Your task to perform on an android device: change keyboard looks Image 0: 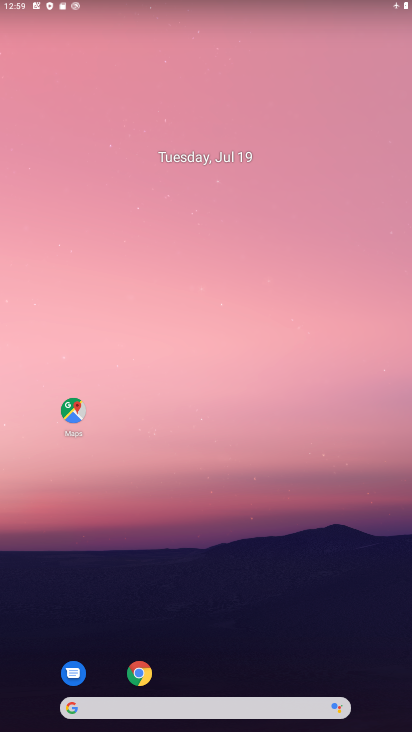
Step 0: drag from (276, 637) to (224, 295)
Your task to perform on an android device: change keyboard looks Image 1: 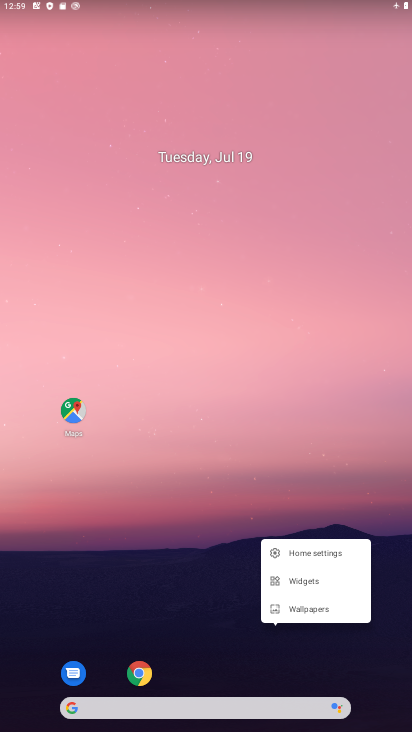
Step 1: drag from (199, 235) to (169, 521)
Your task to perform on an android device: change keyboard looks Image 2: 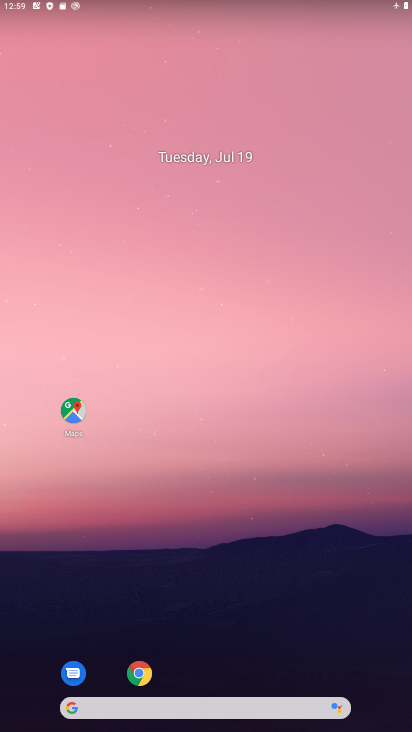
Step 2: click (169, 521)
Your task to perform on an android device: change keyboard looks Image 3: 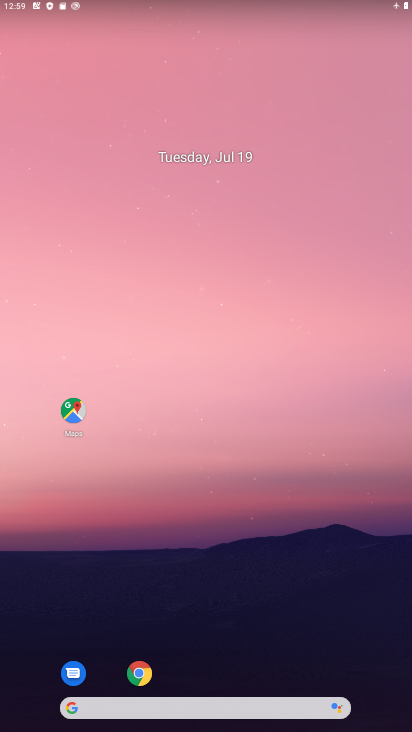
Step 3: drag from (214, 280) to (197, 155)
Your task to perform on an android device: change keyboard looks Image 4: 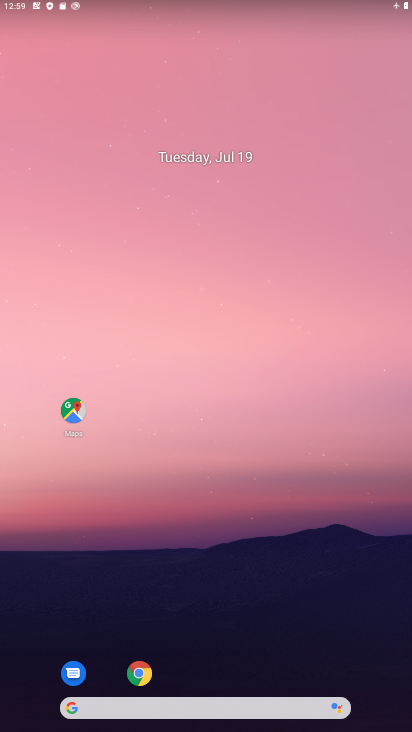
Step 4: drag from (189, 434) to (140, 67)
Your task to perform on an android device: change keyboard looks Image 5: 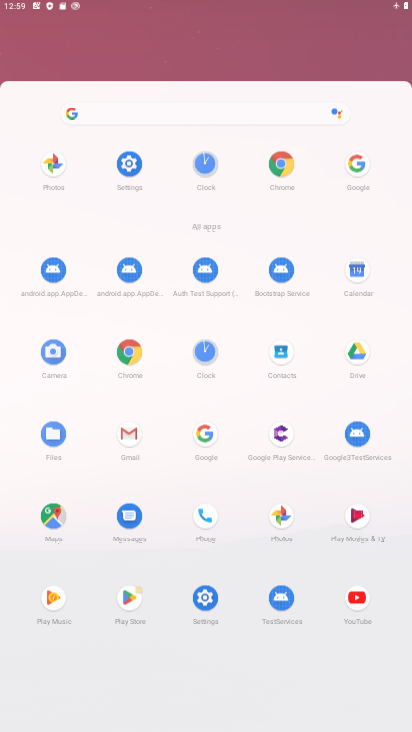
Step 5: drag from (246, 510) to (210, 150)
Your task to perform on an android device: change keyboard looks Image 6: 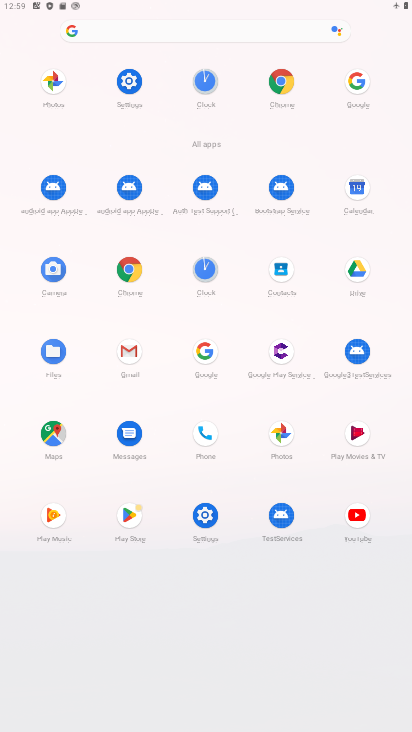
Step 6: drag from (187, 601) to (174, 154)
Your task to perform on an android device: change keyboard looks Image 7: 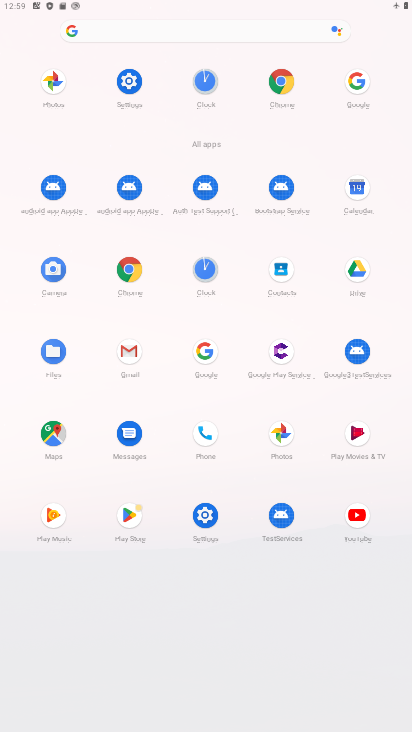
Step 7: click (198, 509)
Your task to perform on an android device: change keyboard looks Image 8: 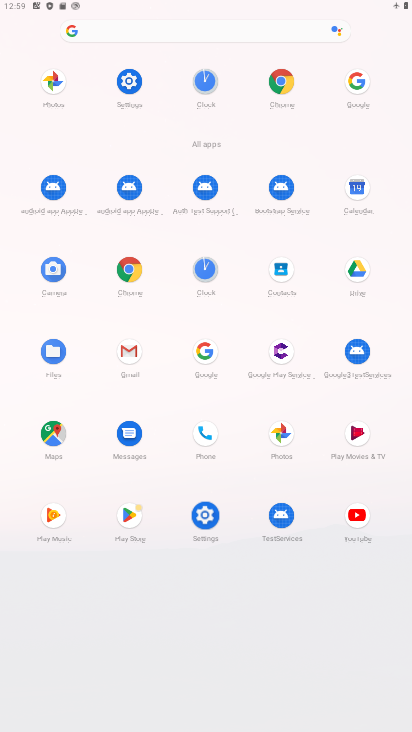
Step 8: click (204, 506)
Your task to perform on an android device: change keyboard looks Image 9: 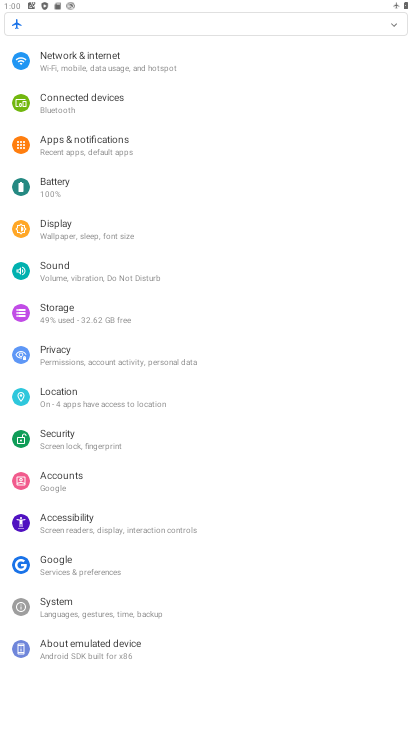
Step 9: drag from (94, 150) to (76, 575)
Your task to perform on an android device: change keyboard looks Image 10: 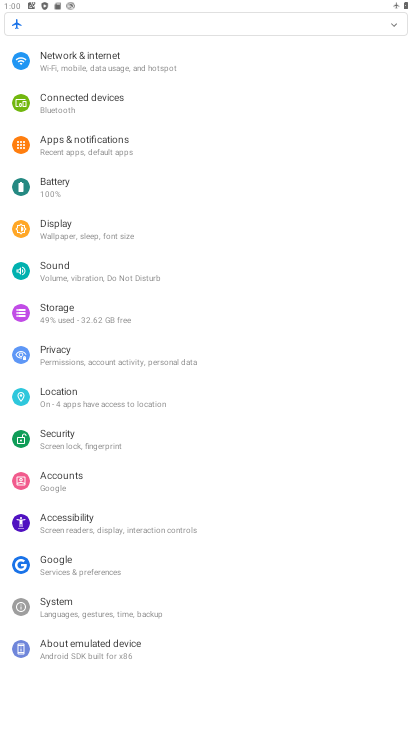
Step 10: click (73, 440)
Your task to perform on an android device: change keyboard looks Image 11: 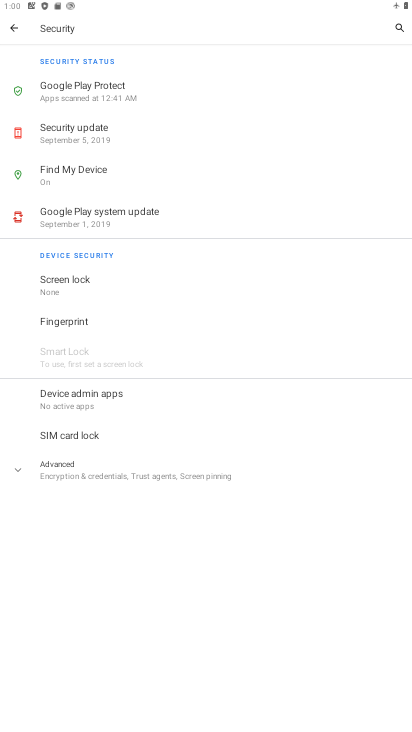
Step 11: click (12, 27)
Your task to perform on an android device: change keyboard looks Image 12: 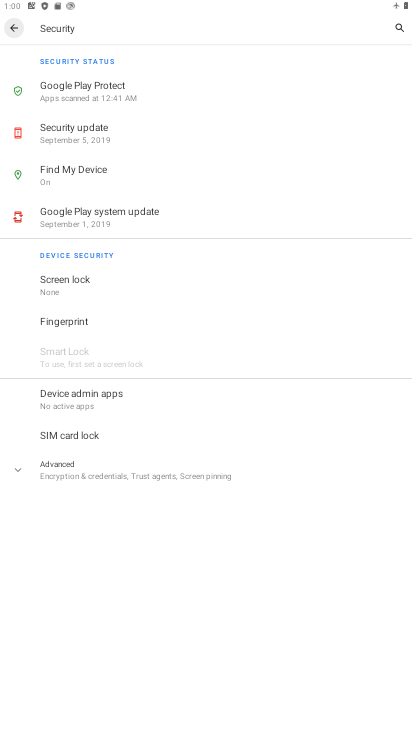
Step 12: click (12, 27)
Your task to perform on an android device: change keyboard looks Image 13: 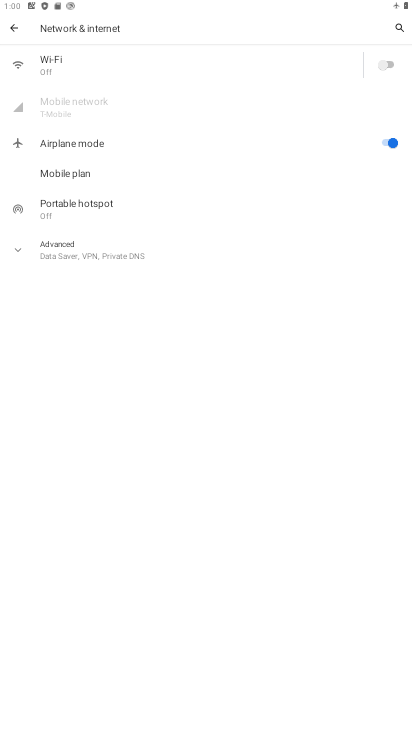
Step 13: click (10, 25)
Your task to perform on an android device: change keyboard looks Image 14: 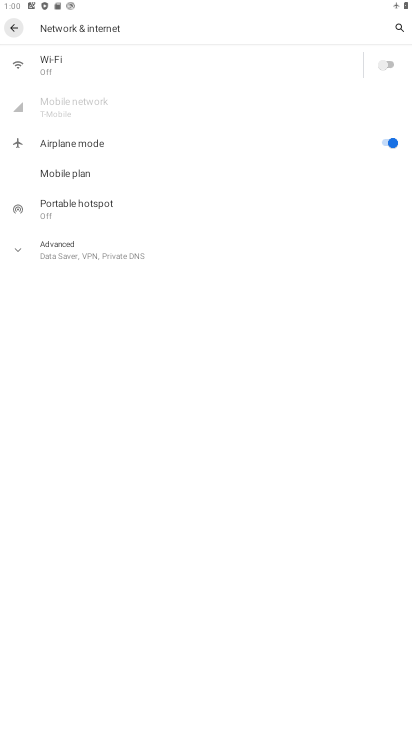
Step 14: click (10, 24)
Your task to perform on an android device: change keyboard looks Image 15: 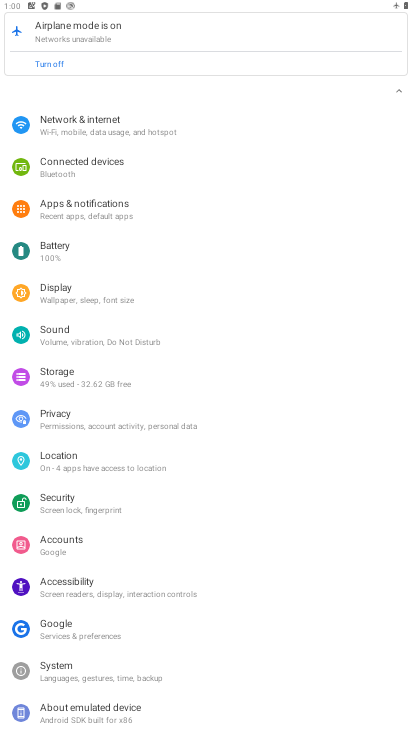
Step 15: click (55, 670)
Your task to perform on an android device: change keyboard looks Image 16: 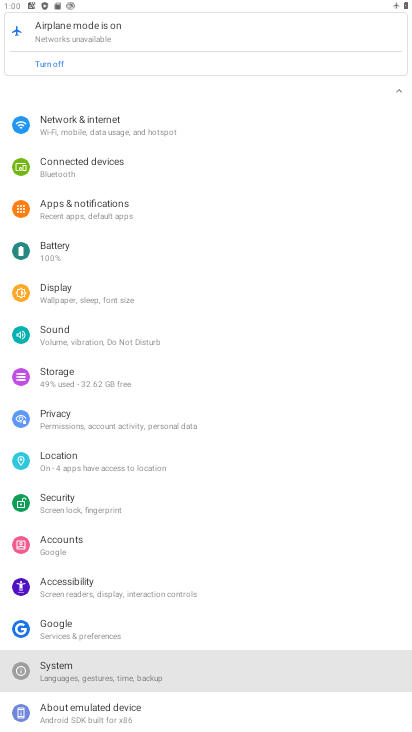
Step 16: click (55, 670)
Your task to perform on an android device: change keyboard looks Image 17: 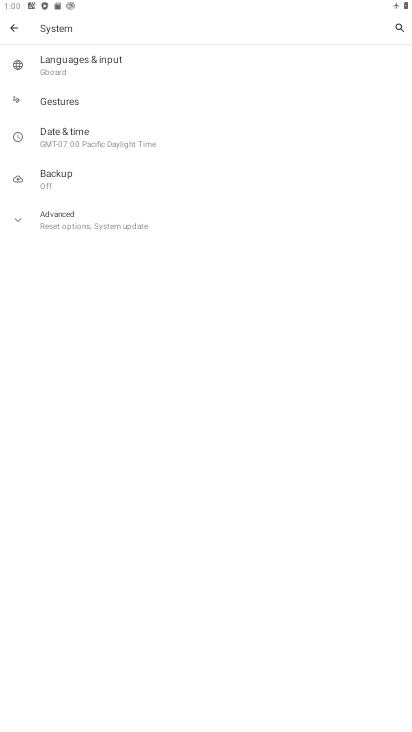
Step 17: click (50, 65)
Your task to perform on an android device: change keyboard looks Image 18: 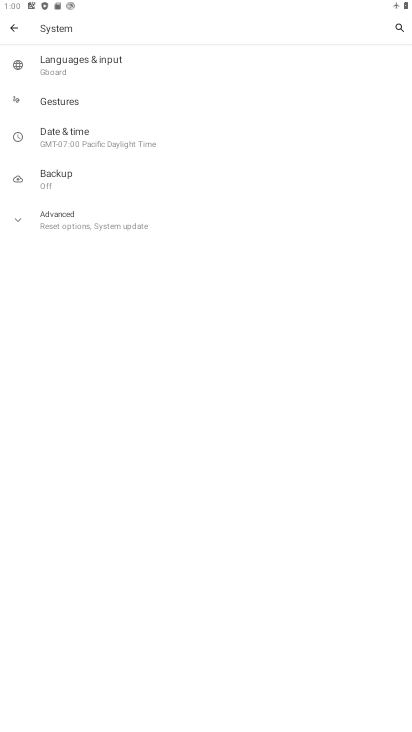
Step 18: click (50, 65)
Your task to perform on an android device: change keyboard looks Image 19: 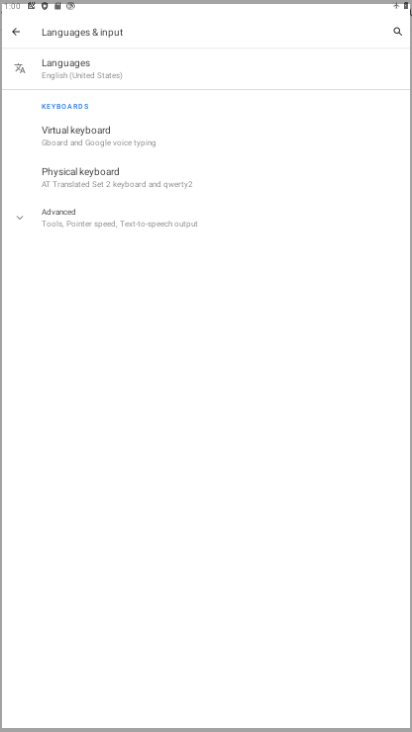
Step 19: click (50, 65)
Your task to perform on an android device: change keyboard looks Image 20: 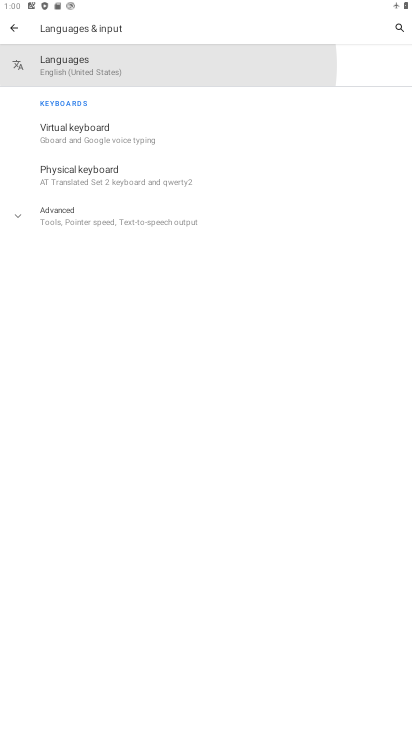
Step 20: click (49, 64)
Your task to perform on an android device: change keyboard looks Image 21: 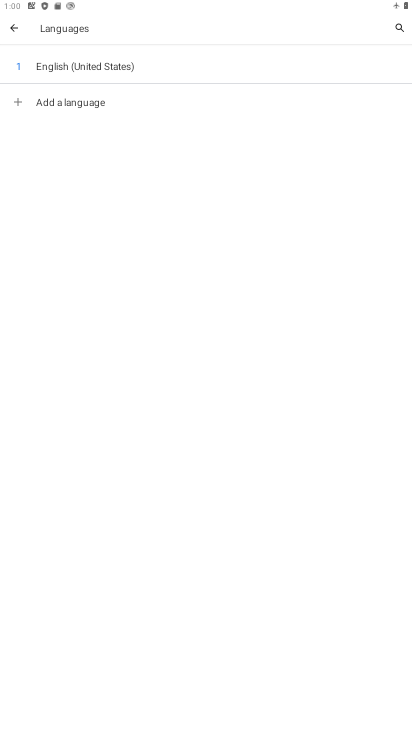
Step 21: click (10, 24)
Your task to perform on an android device: change keyboard looks Image 22: 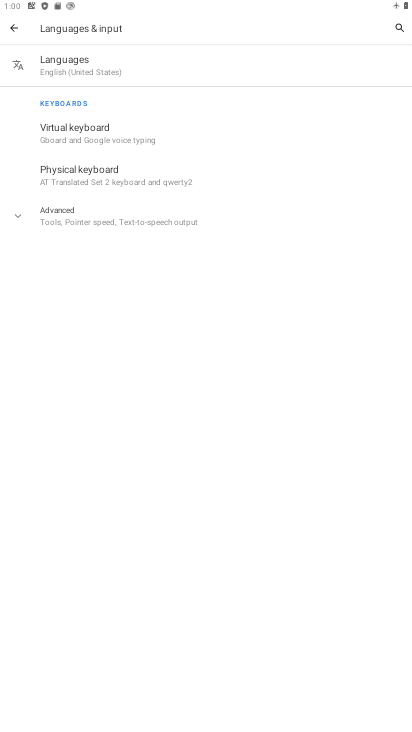
Step 22: click (69, 129)
Your task to perform on an android device: change keyboard looks Image 23: 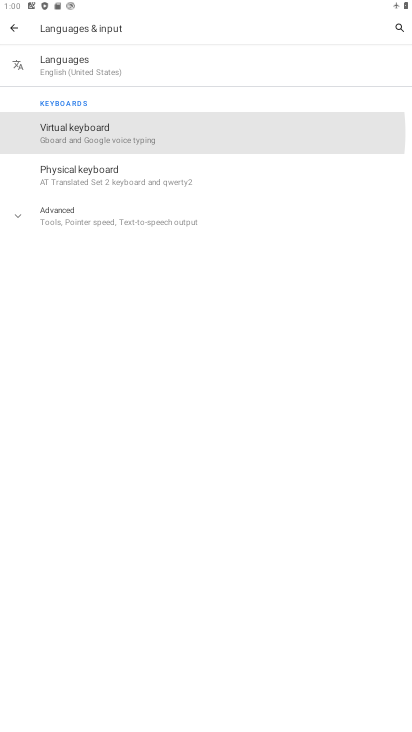
Step 23: click (69, 129)
Your task to perform on an android device: change keyboard looks Image 24: 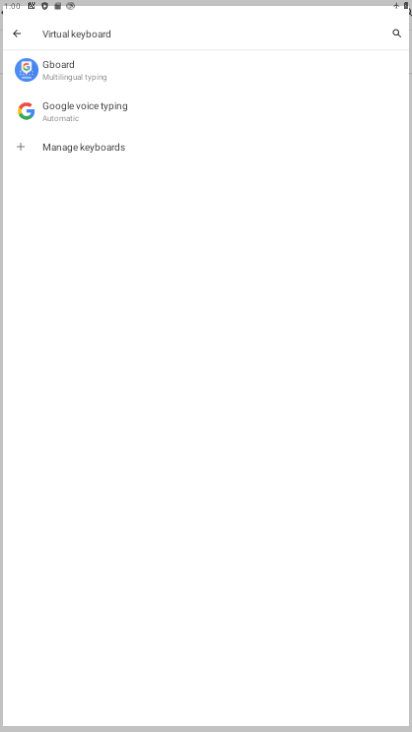
Step 24: click (69, 129)
Your task to perform on an android device: change keyboard looks Image 25: 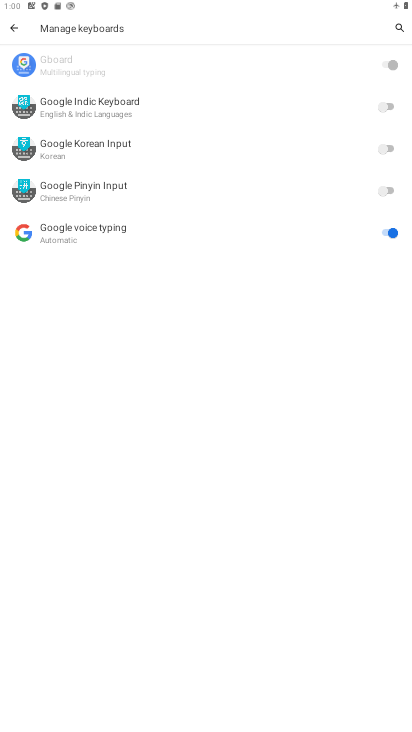
Step 25: click (12, 24)
Your task to perform on an android device: change keyboard looks Image 26: 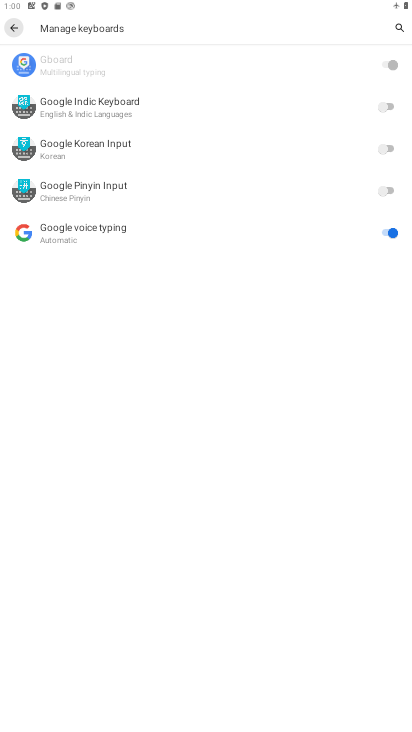
Step 26: click (12, 24)
Your task to perform on an android device: change keyboard looks Image 27: 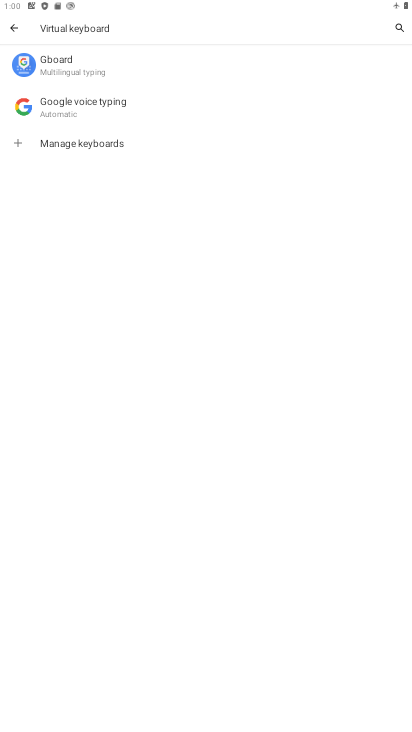
Step 27: click (52, 61)
Your task to perform on an android device: change keyboard looks Image 28: 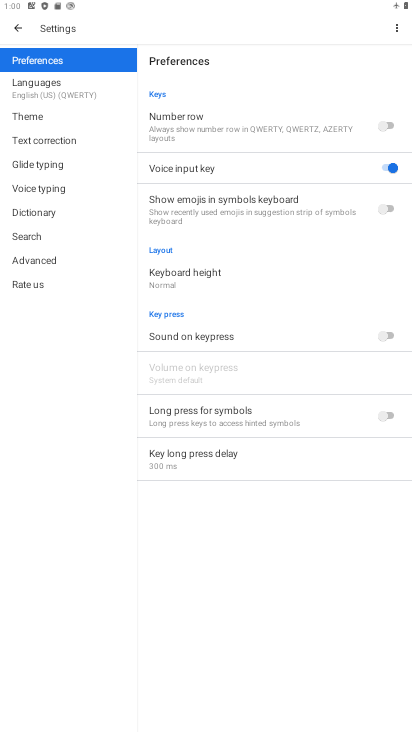
Step 28: click (27, 111)
Your task to perform on an android device: change keyboard looks Image 29: 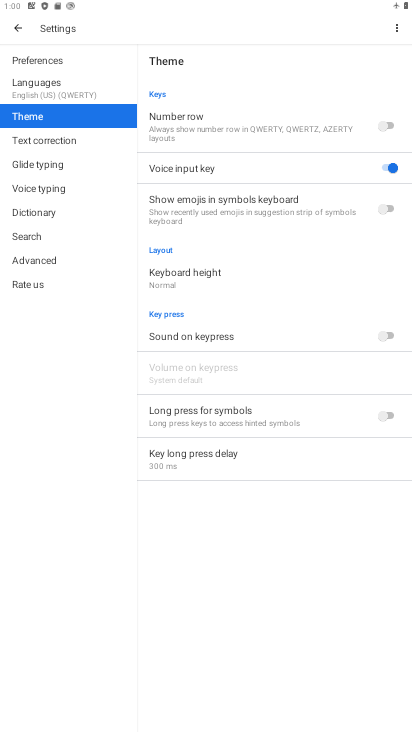
Step 29: click (25, 115)
Your task to perform on an android device: change keyboard looks Image 30: 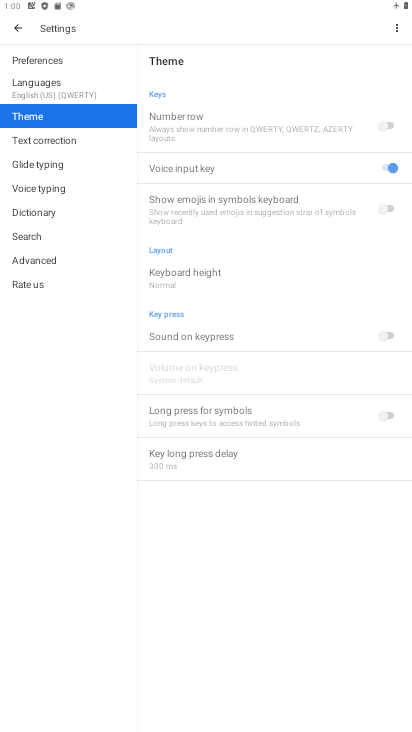
Step 30: click (25, 115)
Your task to perform on an android device: change keyboard looks Image 31: 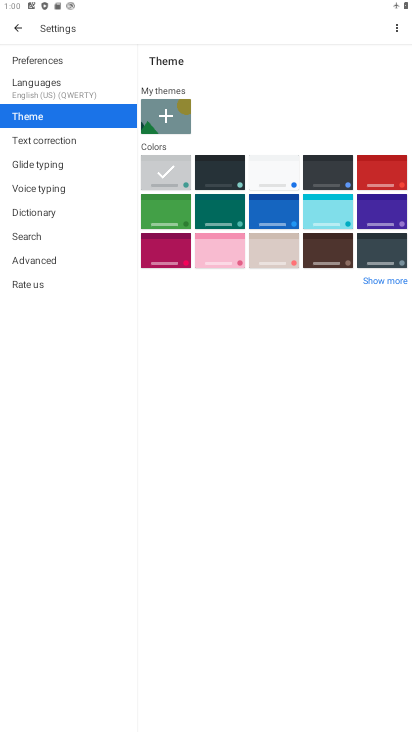
Step 31: click (164, 214)
Your task to perform on an android device: change keyboard looks Image 32: 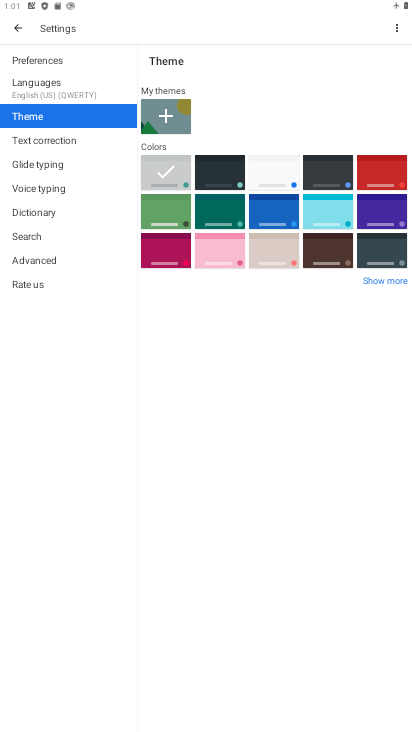
Step 32: click (164, 214)
Your task to perform on an android device: change keyboard looks Image 33: 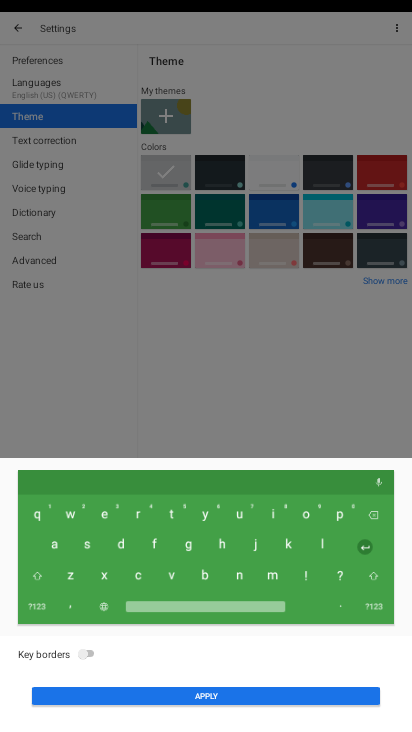
Step 33: click (207, 703)
Your task to perform on an android device: change keyboard looks Image 34: 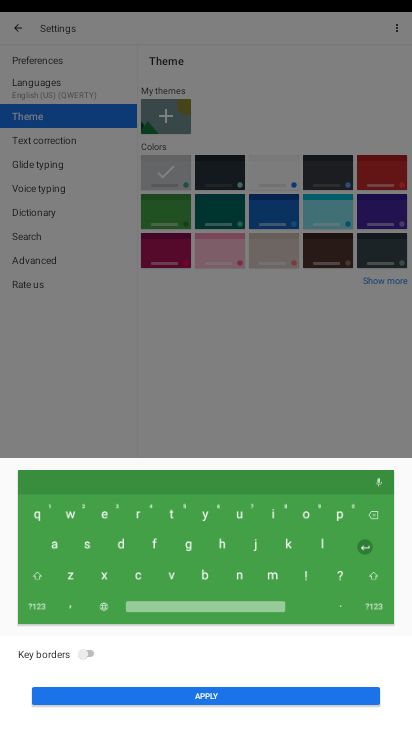
Step 34: click (209, 702)
Your task to perform on an android device: change keyboard looks Image 35: 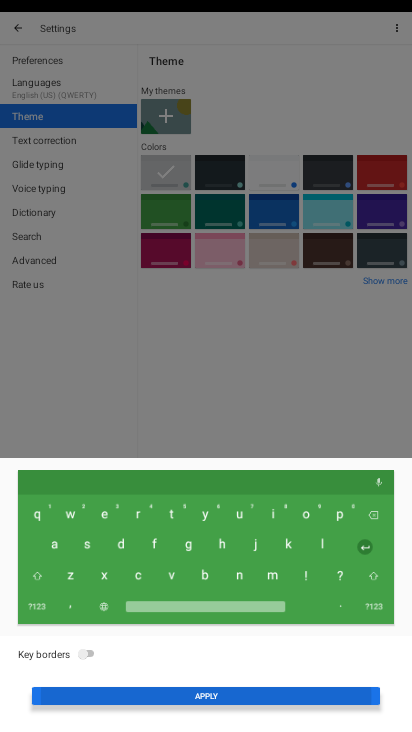
Step 35: click (217, 694)
Your task to perform on an android device: change keyboard looks Image 36: 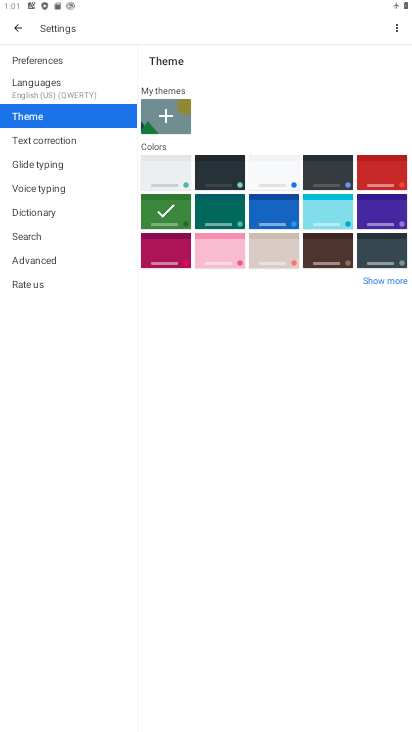
Step 36: click (217, 694)
Your task to perform on an android device: change keyboard looks Image 37: 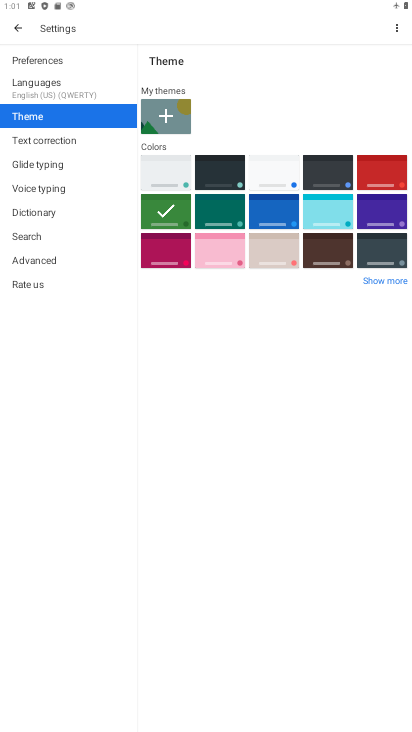
Step 37: task complete